Your task to perform on an android device: change the upload size in google photos Image 0: 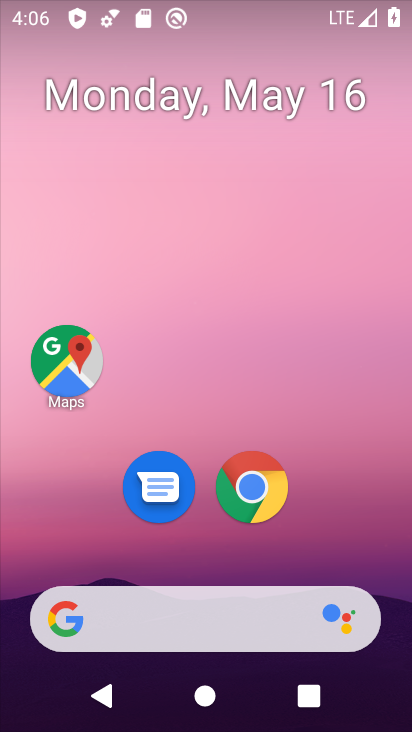
Step 0: drag from (392, 624) to (274, 170)
Your task to perform on an android device: change the upload size in google photos Image 1: 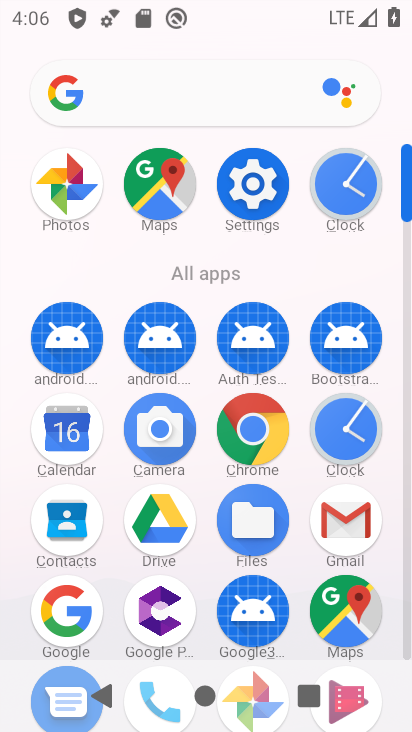
Step 1: click (408, 639)
Your task to perform on an android device: change the upload size in google photos Image 2: 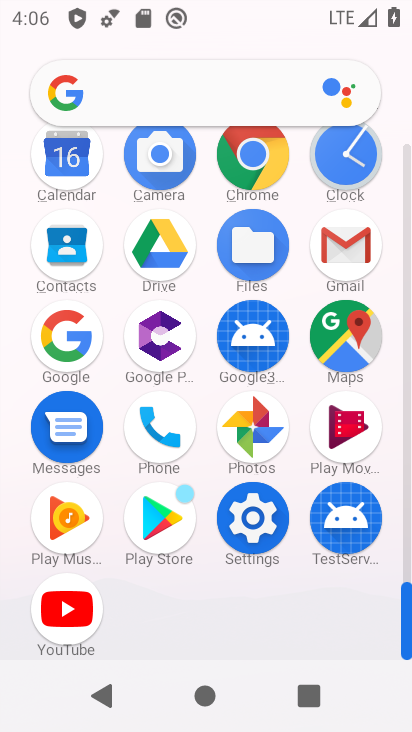
Step 2: click (252, 426)
Your task to perform on an android device: change the upload size in google photos Image 3: 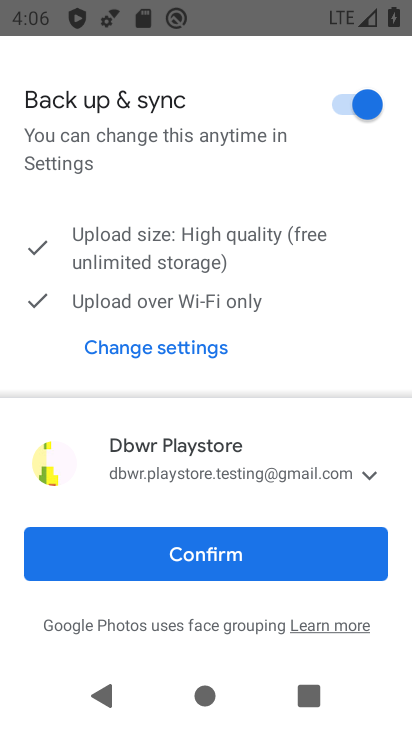
Step 3: click (197, 562)
Your task to perform on an android device: change the upload size in google photos Image 4: 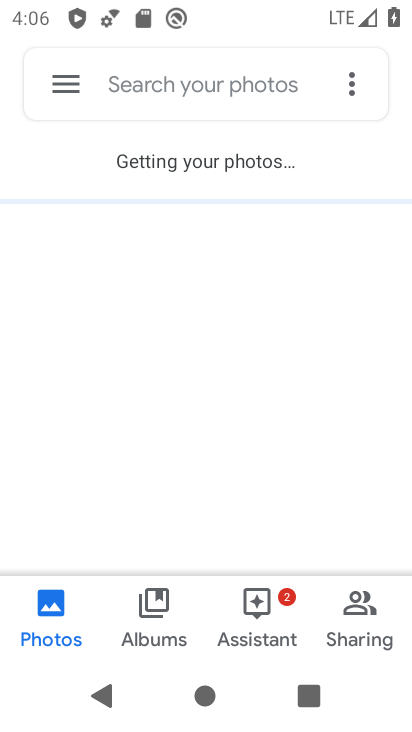
Step 4: click (61, 86)
Your task to perform on an android device: change the upload size in google photos Image 5: 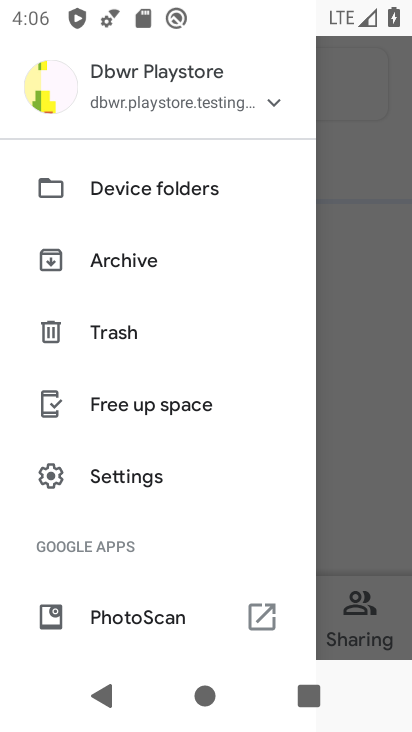
Step 5: click (149, 467)
Your task to perform on an android device: change the upload size in google photos Image 6: 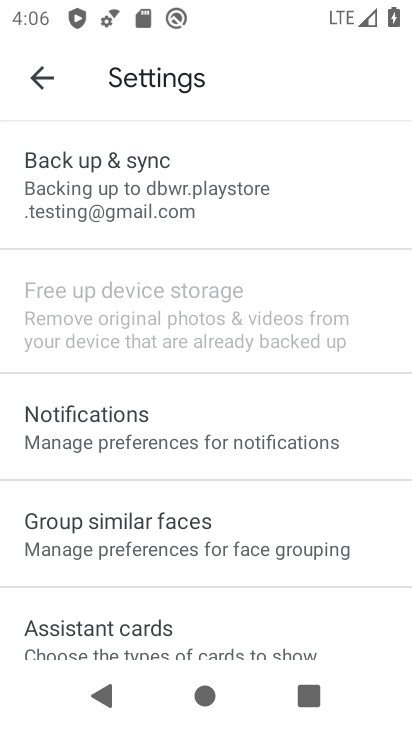
Step 6: click (126, 196)
Your task to perform on an android device: change the upload size in google photos Image 7: 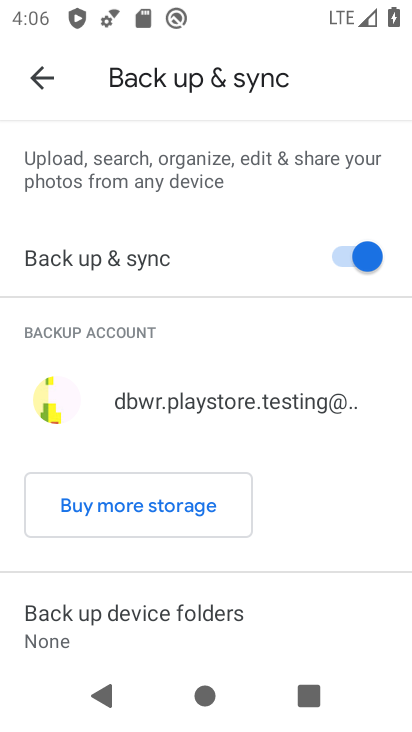
Step 7: drag from (240, 603) to (234, 145)
Your task to perform on an android device: change the upload size in google photos Image 8: 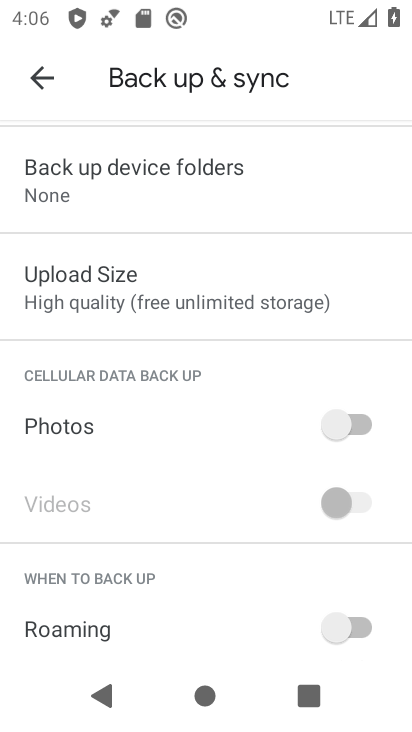
Step 8: click (80, 282)
Your task to perform on an android device: change the upload size in google photos Image 9: 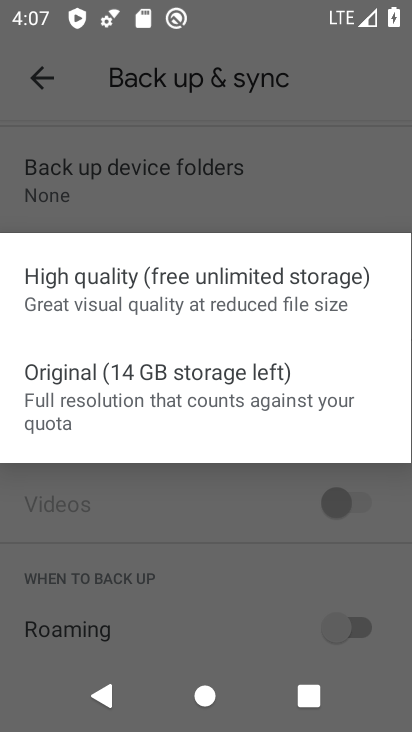
Step 9: click (116, 389)
Your task to perform on an android device: change the upload size in google photos Image 10: 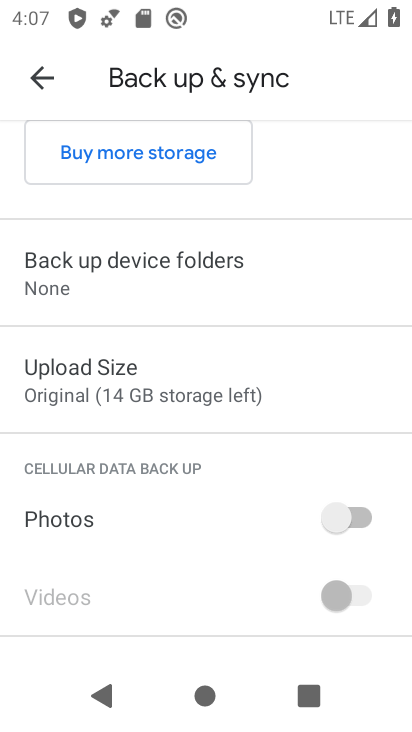
Step 10: task complete